Your task to perform on an android device: What's the weather going to be tomorrow? Image 0: 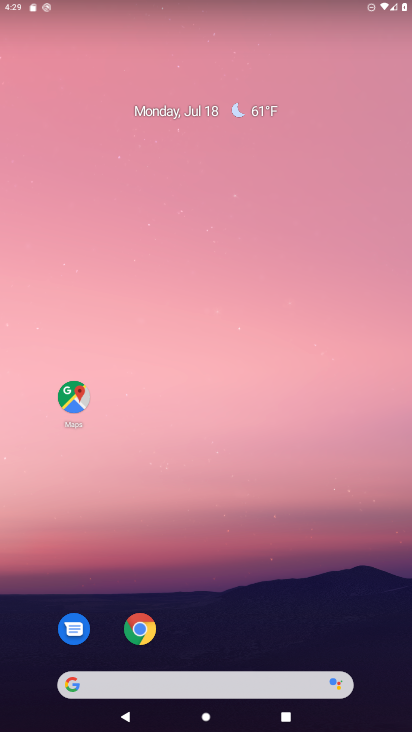
Step 0: drag from (235, 653) to (235, 338)
Your task to perform on an android device: What's the weather going to be tomorrow? Image 1: 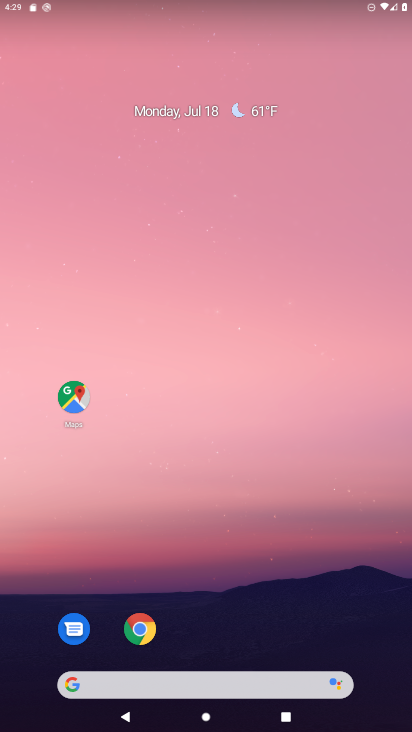
Step 1: drag from (226, 673) to (226, 19)
Your task to perform on an android device: What's the weather going to be tomorrow? Image 2: 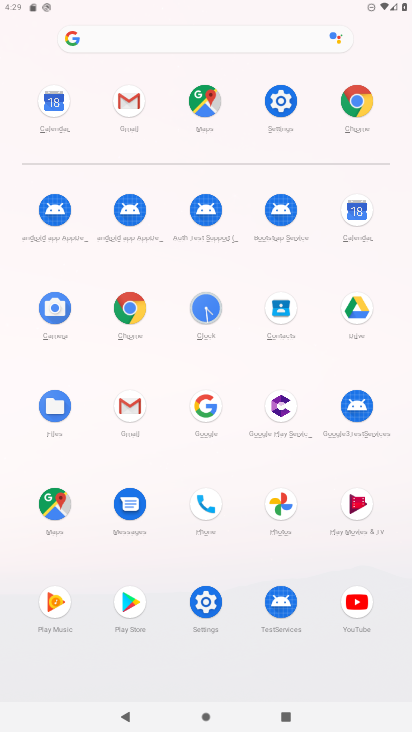
Step 2: click (198, 408)
Your task to perform on an android device: What's the weather going to be tomorrow? Image 3: 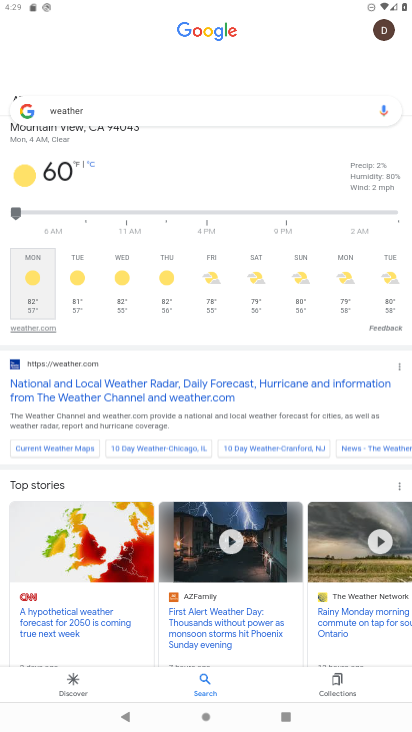
Step 3: drag from (125, 106) to (67, 106)
Your task to perform on an android device: What's the weather going to be tomorrow? Image 4: 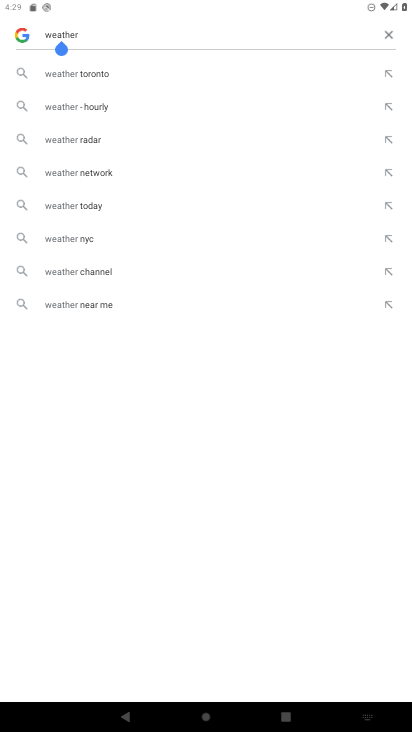
Step 4: click (389, 33)
Your task to perform on an android device: What's the weather going to be tomorrow? Image 5: 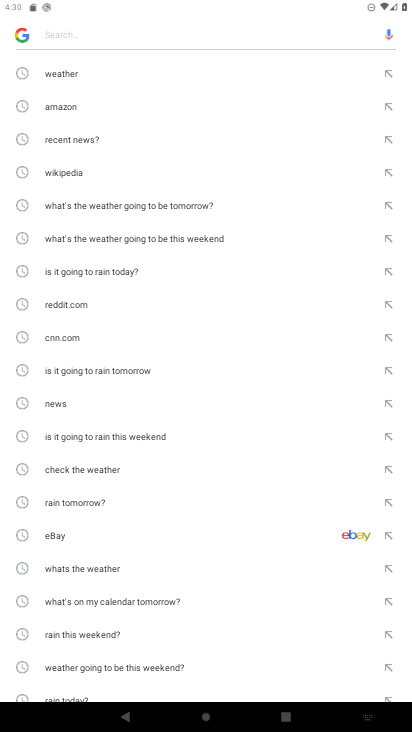
Step 5: click (171, 209)
Your task to perform on an android device: What's the weather going to be tomorrow? Image 6: 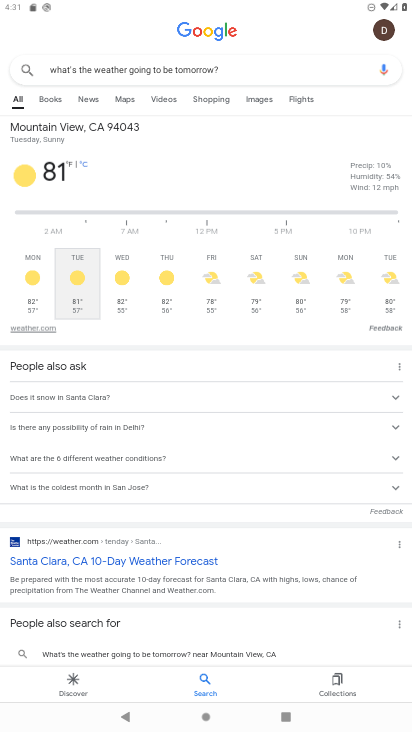
Step 6: task complete